Your task to perform on an android device: What's on my calendar tomorrow? Image 0: 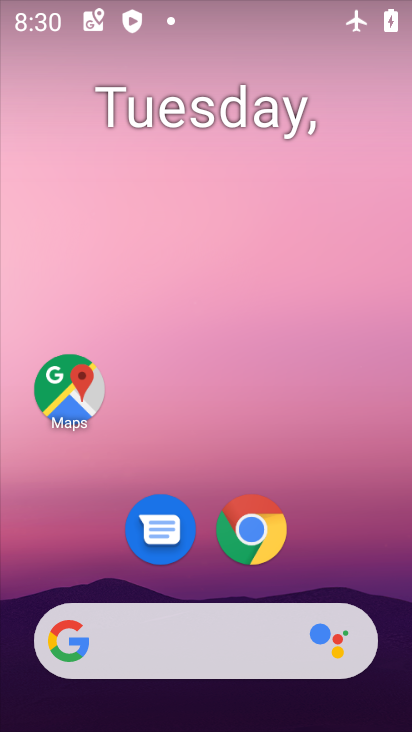
Step 0: drag from (237, 638) to (232, 48)
Your task to perform on an android device: What's on my calendar tomorrow? Image 1: 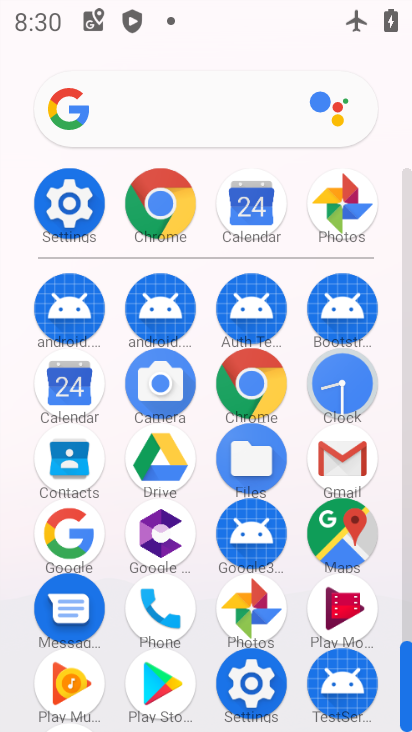
Step 1: click (76, 391)
Your task to perform on an android device: What's on my calendar tomorrow? Image 2: 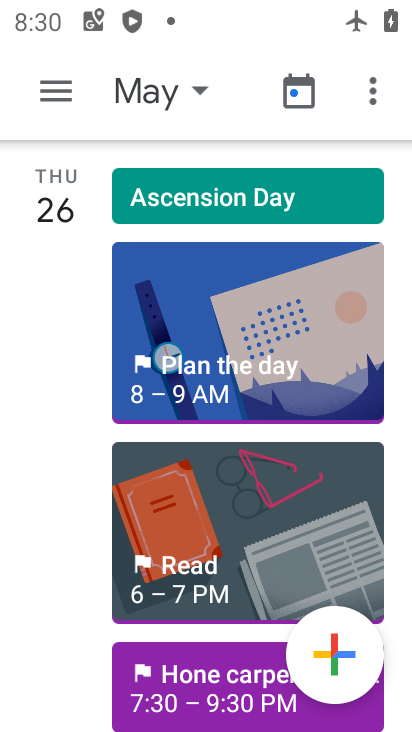
Step 2: task complete